Your task to perform on an android device: add a label to a message in the gmail app Image 0: 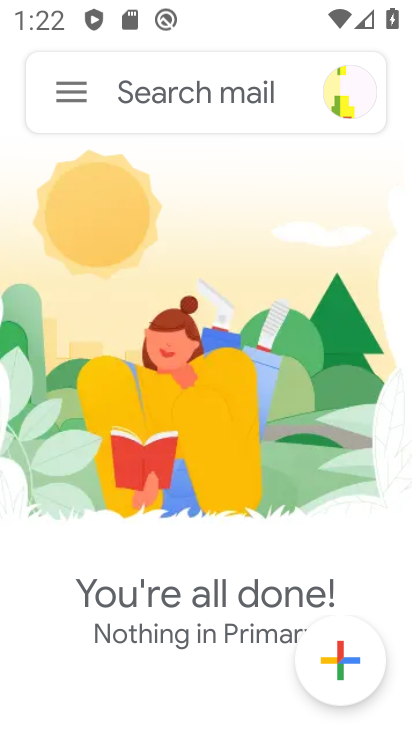
Step 0: press home button
Your task to perform on an android device: add a label to a message in the gmail app Image 1: 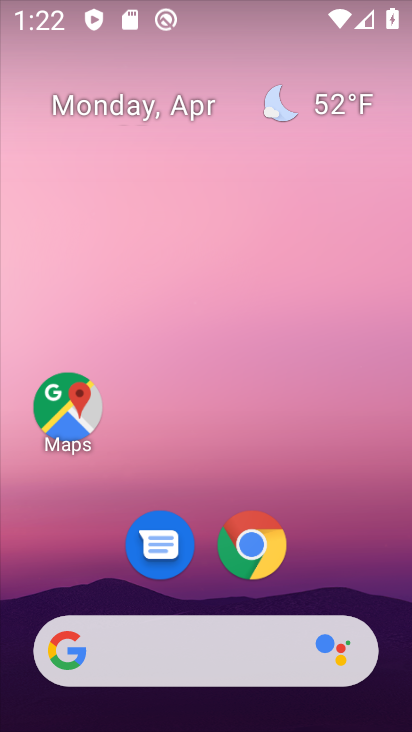
Step 1: drag from (223, 728) to (185, 128)
Your task to perform on an android device: add a label to a message in the gmail app Image 2: 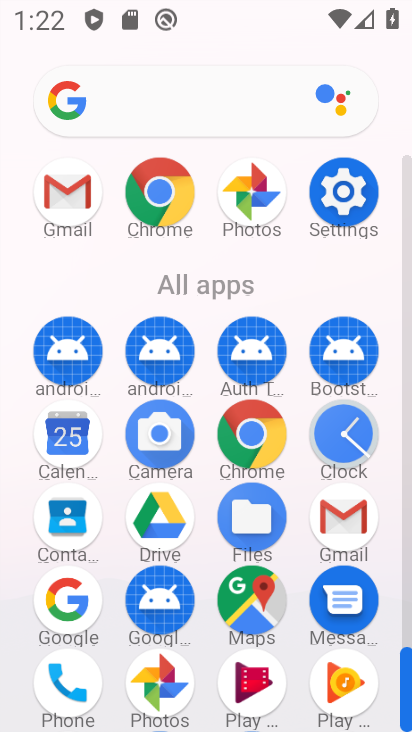
Step 2: click (351, 523)
Your task to perform on an android device: add a label to a message in the gmail app Image 3: 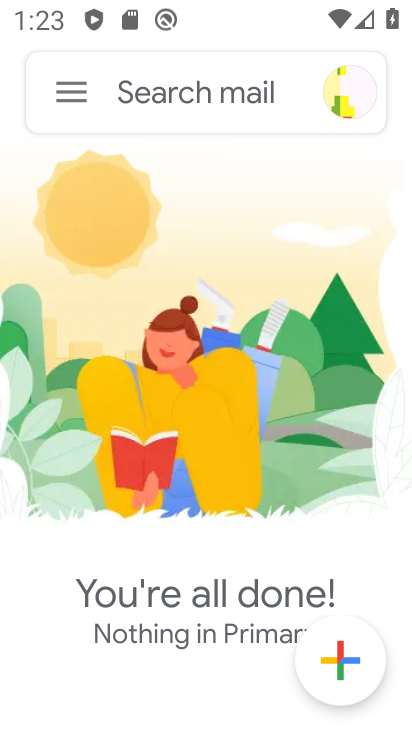
Step 3: task complete